Your task to perform on an android device: open app "Flipkart Online Shopping App" (install if not already installed) and go to login screen Image 0: 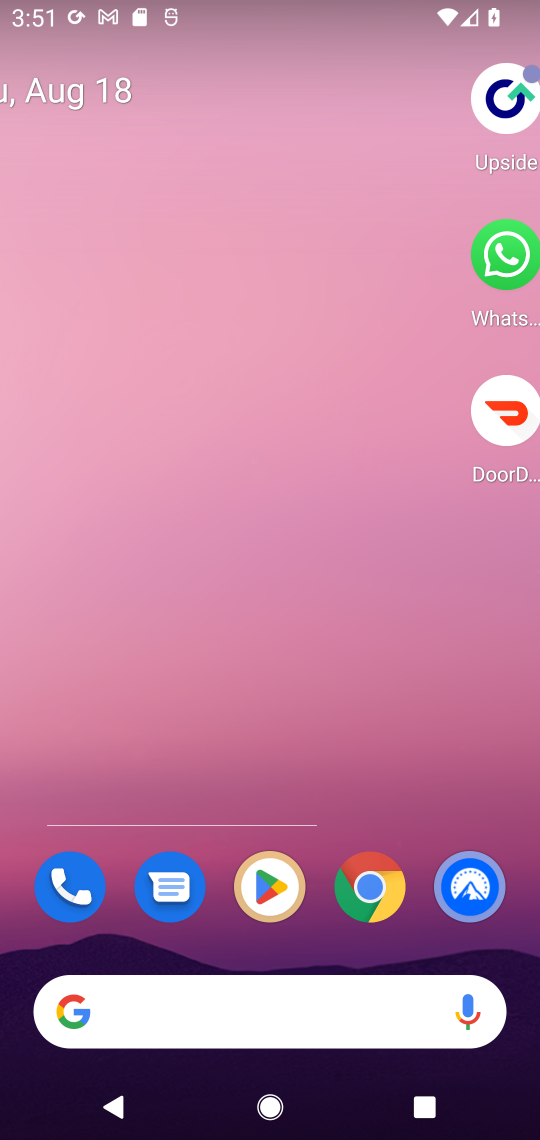
Step 0: press home button
Your task to perform on an android device: open app "Flipkart Online Shopping App" (install if not already installed) and go to login screen Image 1: 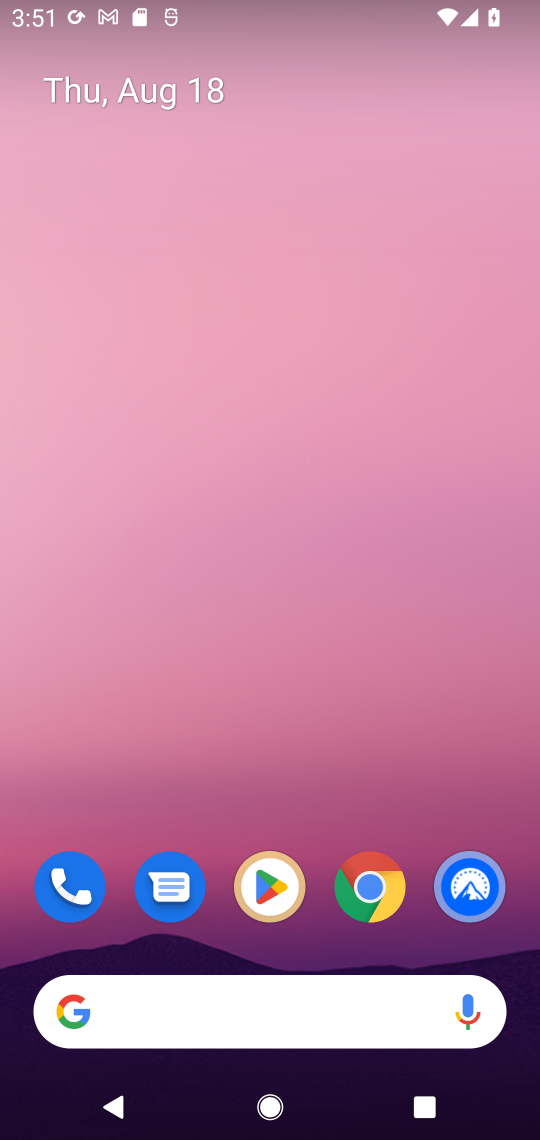
Step 1: click (270, 887)
Your task to perform on an android device: open app "Flipkart Online Shopping App" (install if not already installed) and go to login screen Image 2: 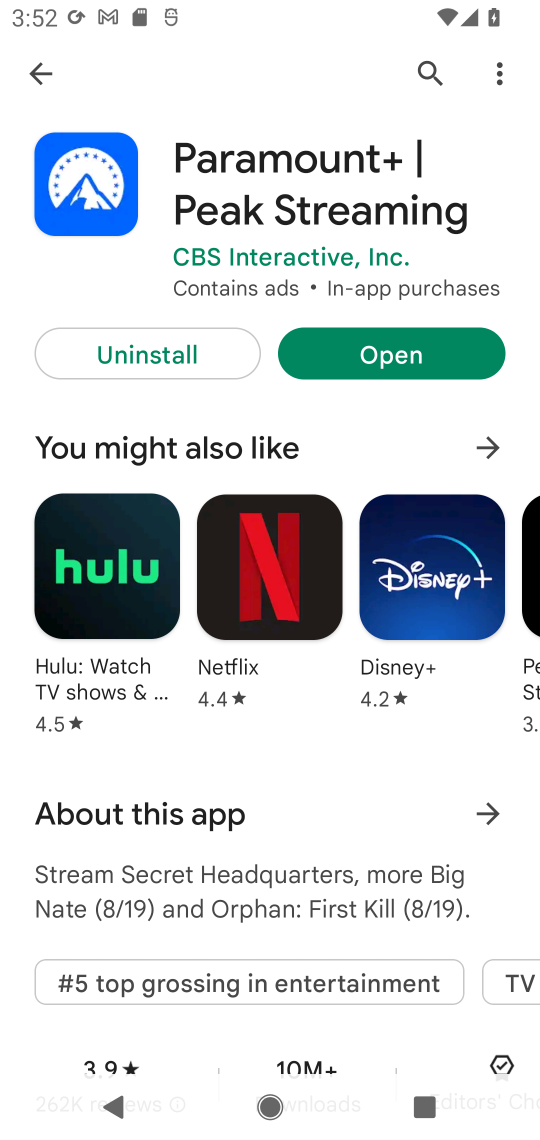
Step 2: click (419, 63)
Your task to perform on an android device: open app "Flipkart Online Shopping App" (install if not already installed) and go to login screen Image 3: 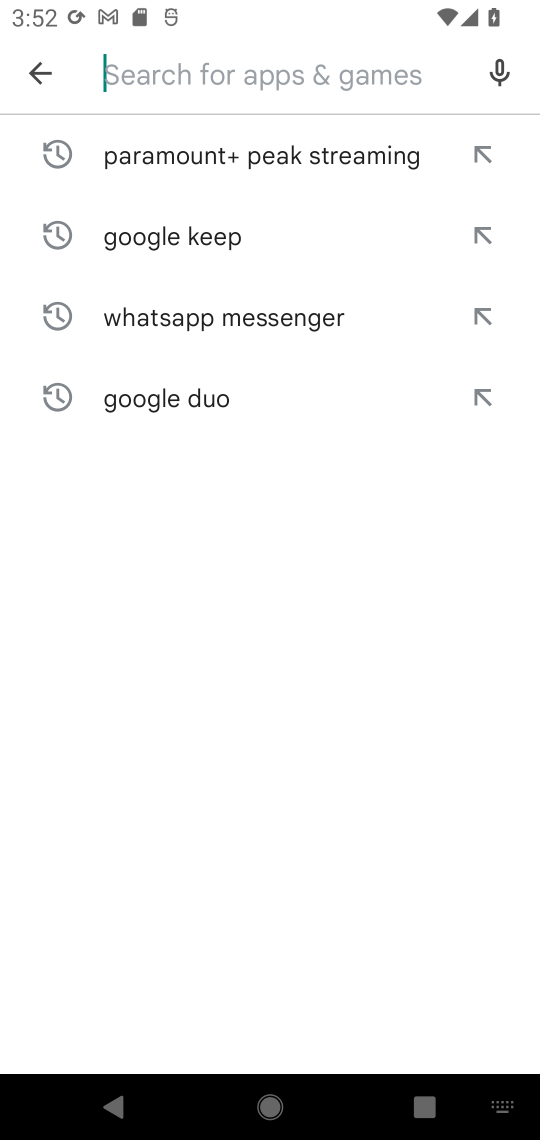
Step 3: type "Flipkart Online Shopping App"
Your task to perform on an android device: open app "Flipkart Online Shopping App" (install if not already installed) and go to login screen Image 4: 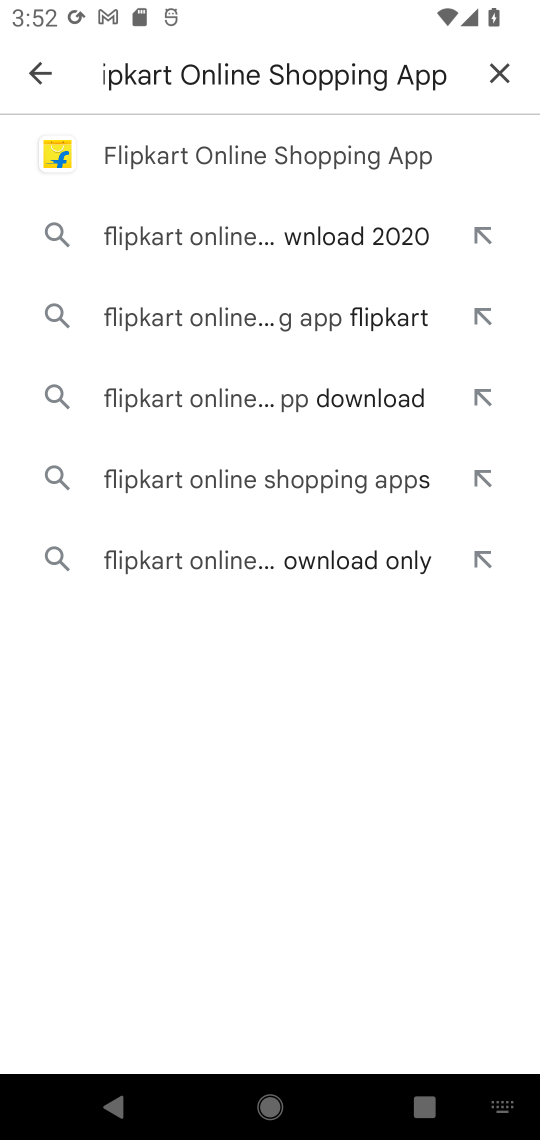
Step 4: click (207, 141)
Your task to perform on an android device: open app "Flipkart Online Shopping App" (install if not already installed) and go to login screen Image 5: 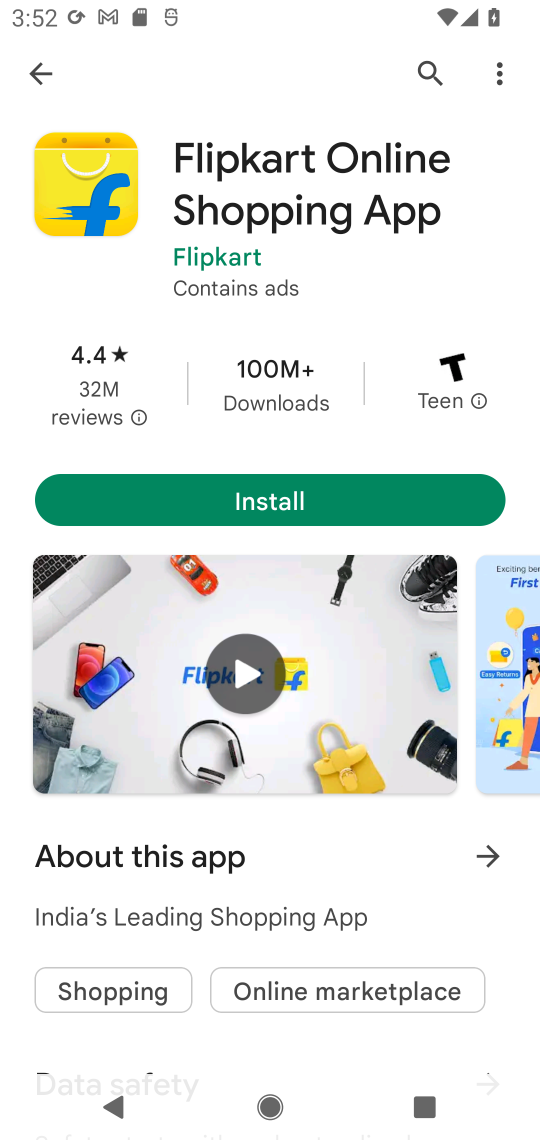
Step 5: click (282, 495)
Your task to perform on an android device: open app "Flipkart Online Shopping App" (install if not already installed) and go to login screen Image 6: 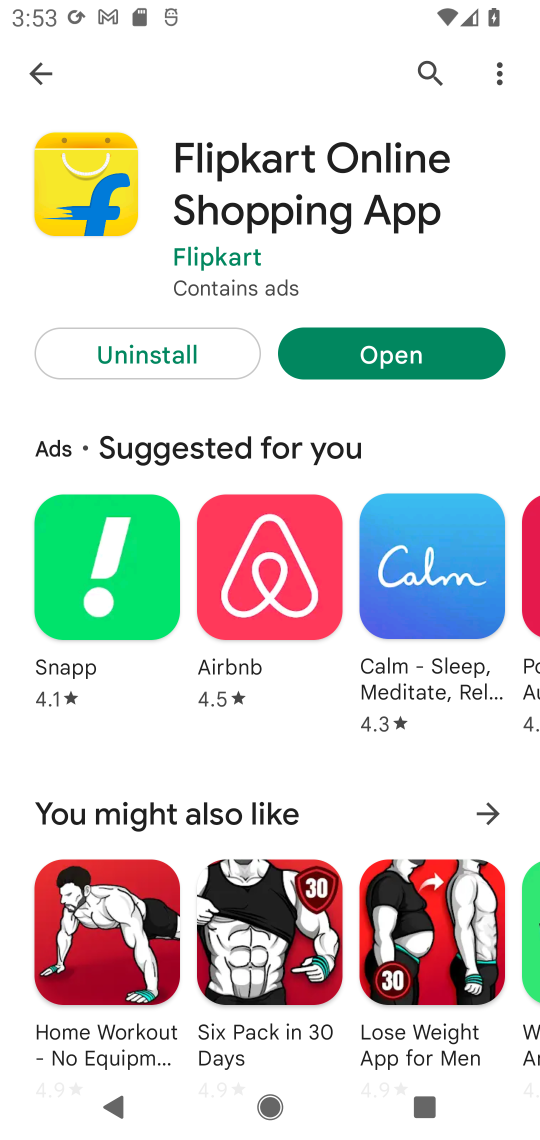
Step 6: click (377, 354)
Your task to perform on an android device: open app "Flipkart Online Shopping App" (install if not already installed) and go to login screen Image 7: 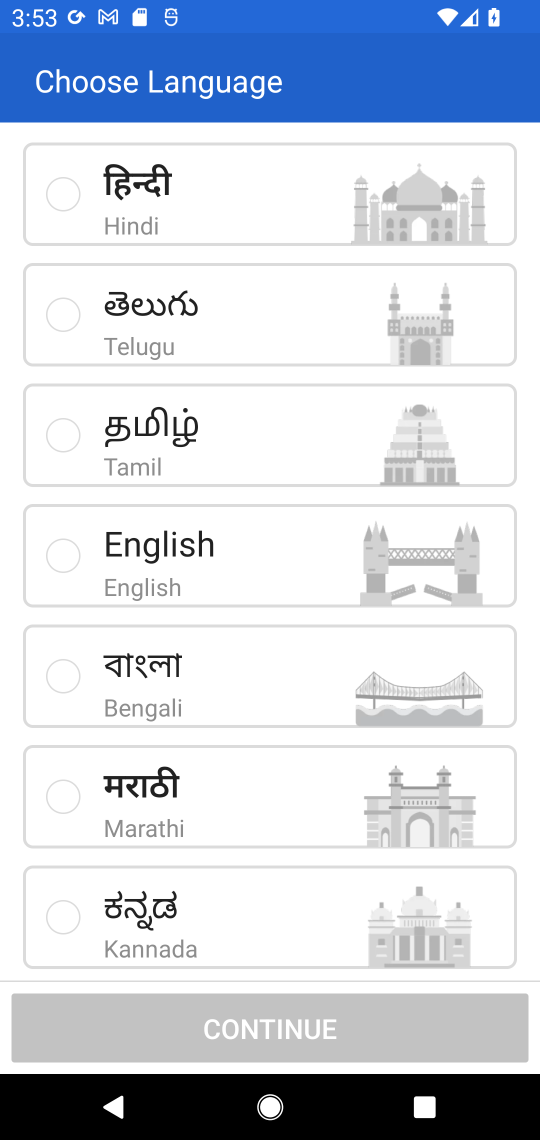
Step 7: click (59, 570)
Your task to perform on an android device: open app "Flipkart Online Shopping App" (install if not already installed) and go to login screen Image 8: 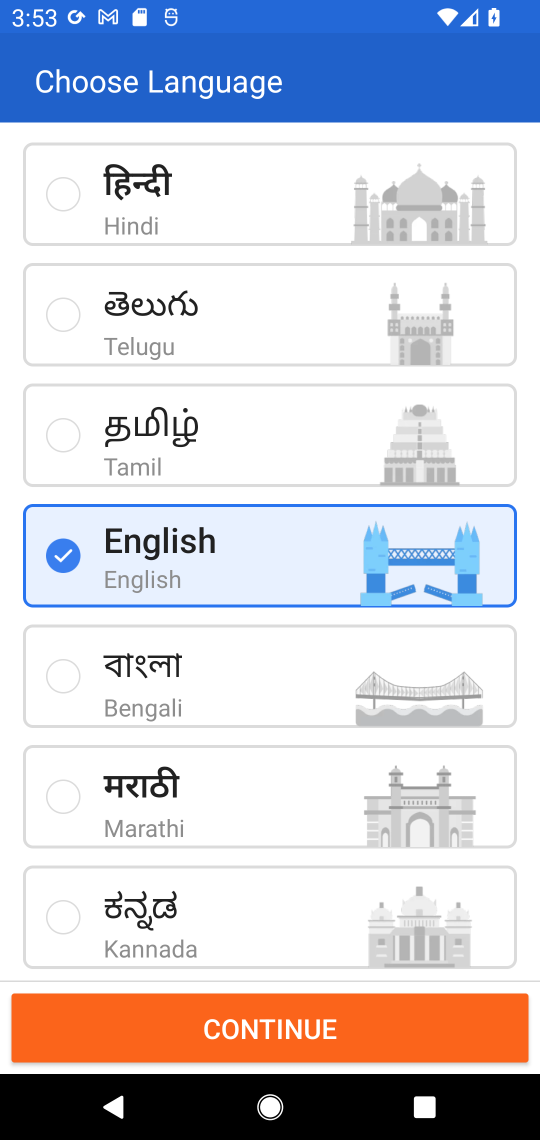
Step 8: click (305, 1034)
Your task to perform on an android device: open app "Flipkart Online Shopping App" (install if not already installed) and go to login screen Image 9: 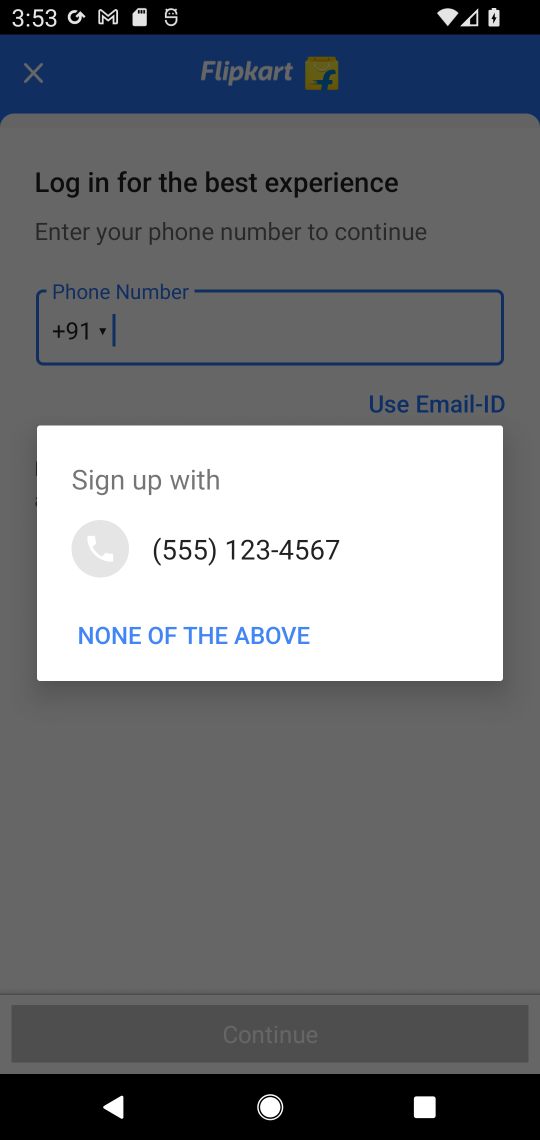
Step 9: click (223, 546)
Your task to perform on an android device: open app "Flipkart Online Shopping App" (install if not already installed) and go to login screen Image 10: 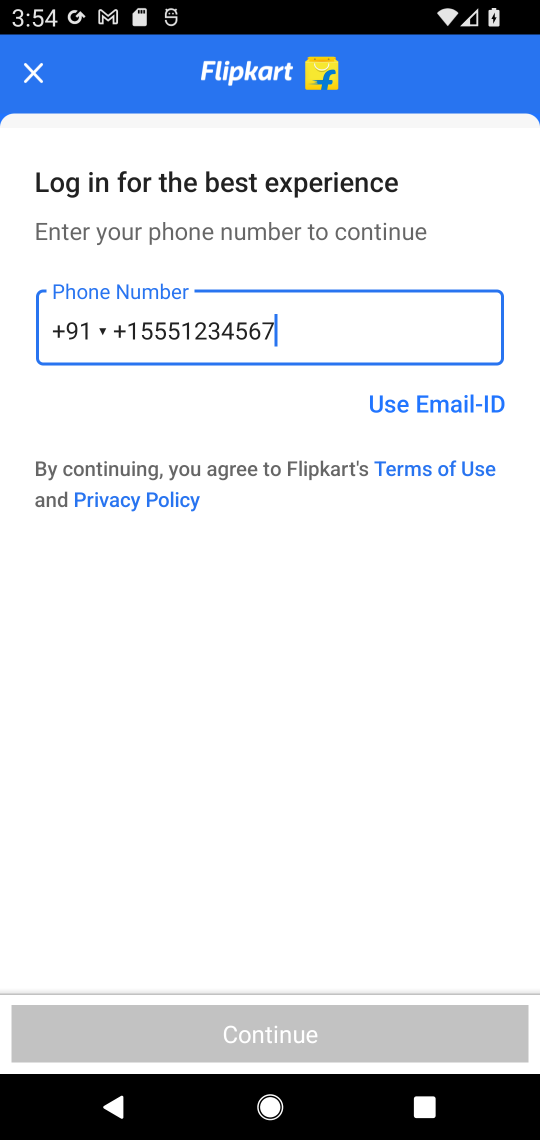
Step 10: task complete